Your task to perform on an android device: Open Google Maps and go to "Timeline" Image 0: 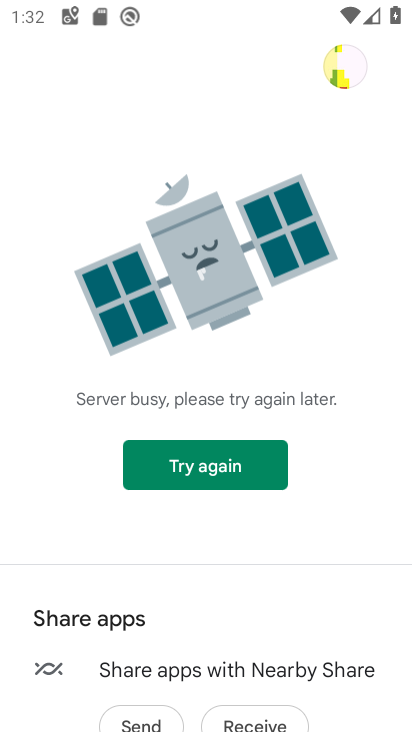
Step 0: press home button
Your task to perform on an android device: Open Google Maps and go to "Timeline" Image 1: 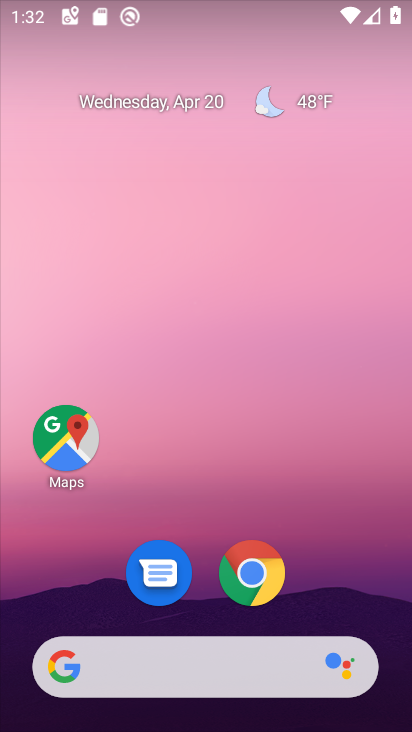
Step 1: drag from (199, 667) to (322, 188)
Your task to perform on an android device: Open Google Maps and go to "Timeline" Image 2: 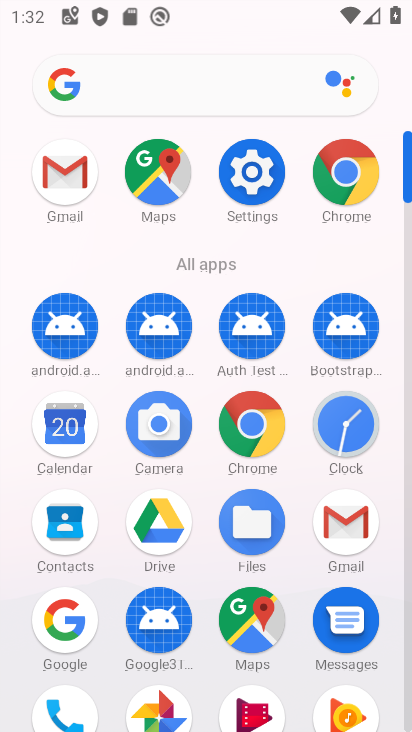
Step 2: click (156, 189)
Your task to perform on an android device: Open Google Maps and go to "Timeline" Image 3: 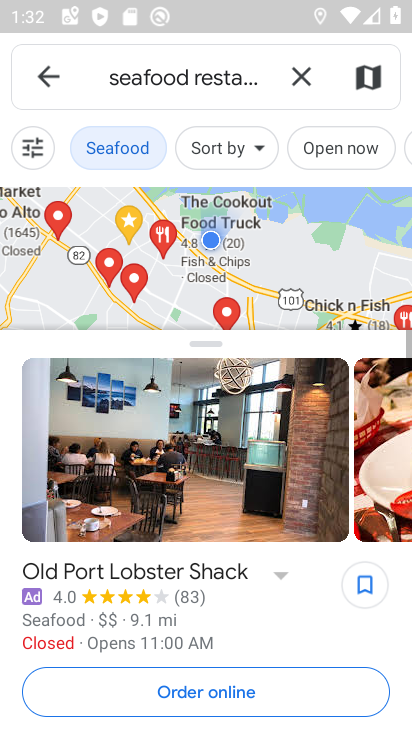
Step 3: click (51, 77)
Your task to perform on an android device: Open Google Maps and go to "Timeline" Image 4: 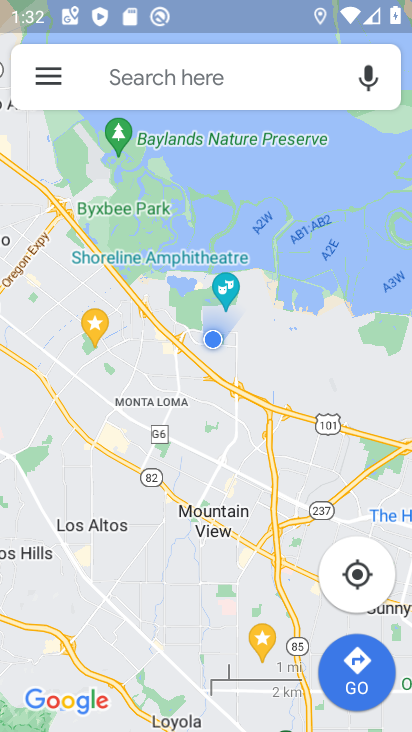
Step 4: click (51, 77)
Your task to perform on an android device: Open Google Maps and go to "Timeline" Image 5: 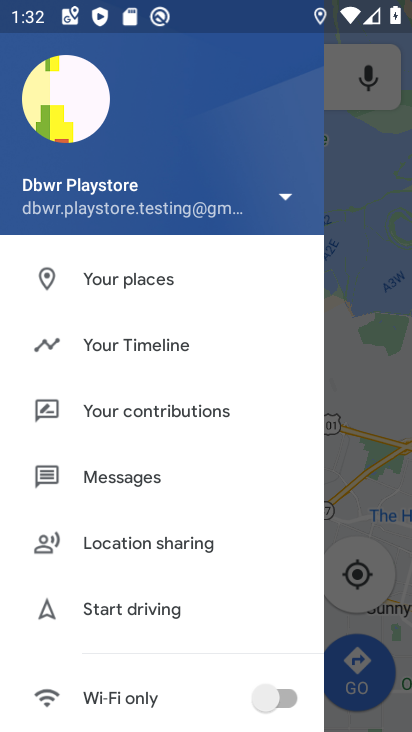
Step 5: click (116, 342)
Your task to perform on an android device: Open Google Maps and go to "Timeline" Image 6: 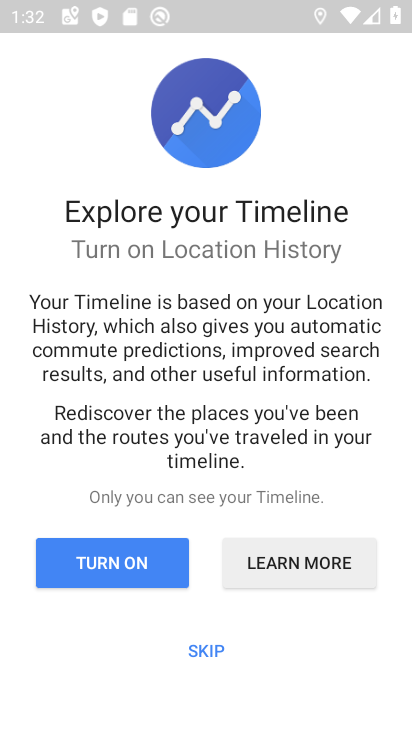
Step 6: drag from (208, 465) to (337, 177)
Your task to perform on an android device: Open Google Maps and go to "Timeline" Image 7: 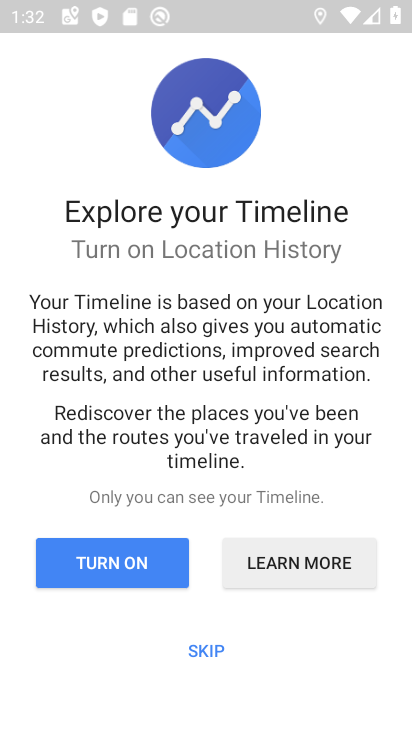
Step 7: click (207, 649)
Your task to perform on an android device: Open Google Maps and go to "Timeline" Image 8: 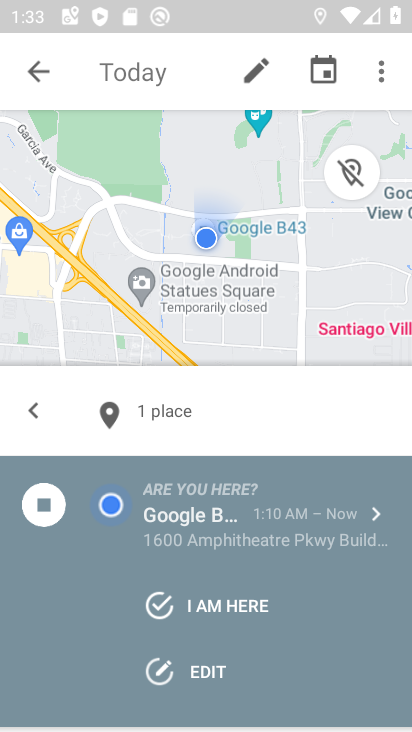
Step 8: task complete